Your task to perform on an android device: open chrome privacy settings Image 0: 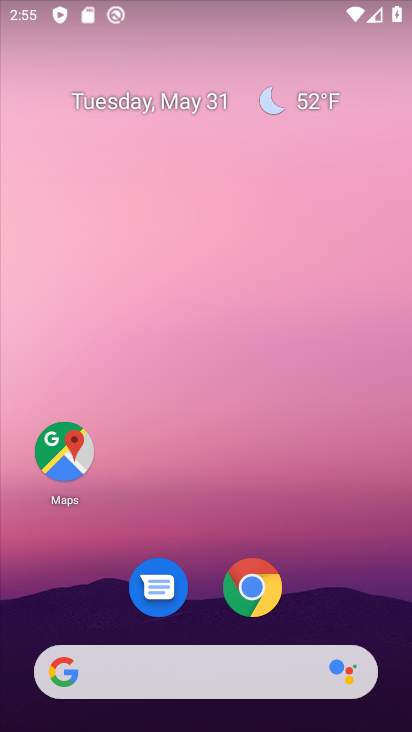
Step 0: drag from (369, 609) to (260, 181)
Your task to perform on an android device: open chrome privacy settings Image 1: 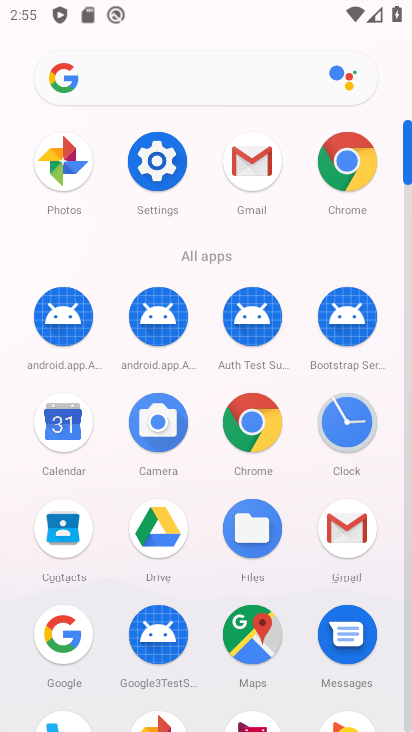
Step 1: click (340, 182)
Your task to perform on an android device: open chrome privacy settings Image 2: 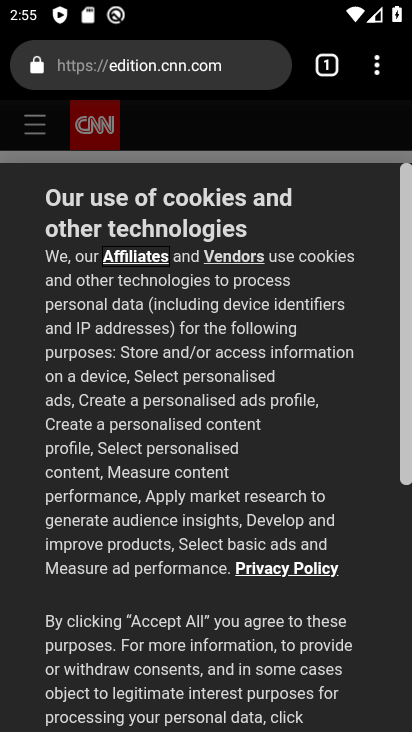
Step 2: click (380, 65)
Your task to perform on an android device: open chrome privacy settings Image 3: 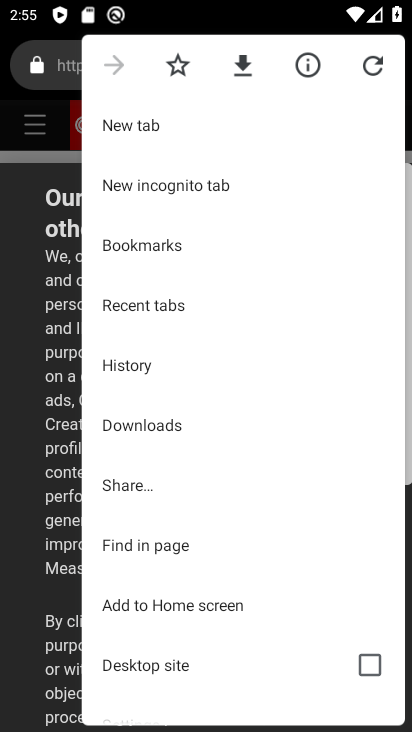
Step 3: drag from (200, 627) to (171, 162)
Your task to perform on an android device: open chrome privacy settings Image 4: 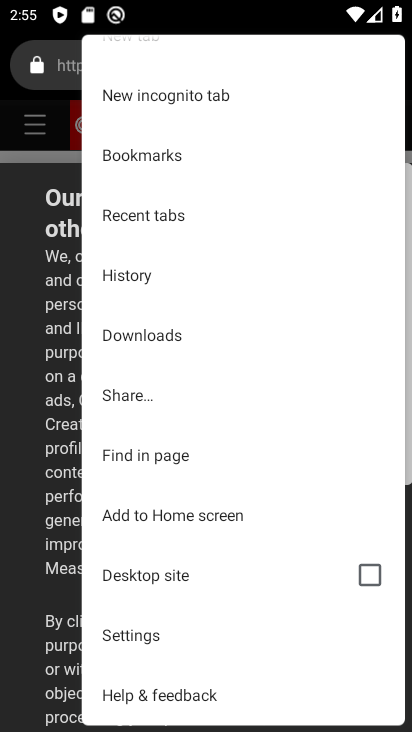
Step 4: click (160, 645)
Your task to perform on an android device: open chrome privacy settings Image 5: 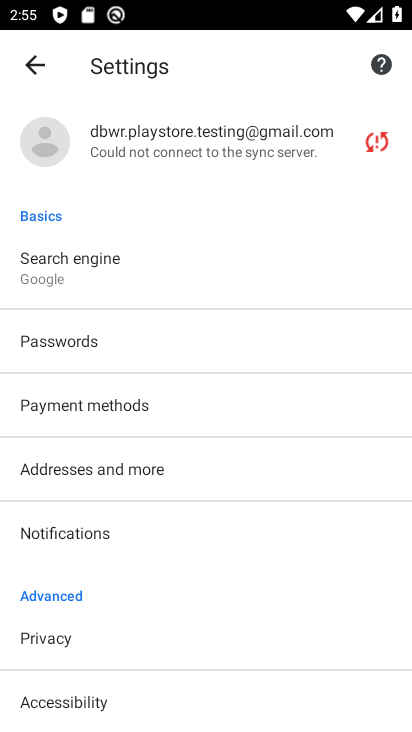
Step 5: click (160, 645)
Your task to perform on an android device: open chrome privacy settings Image 6: 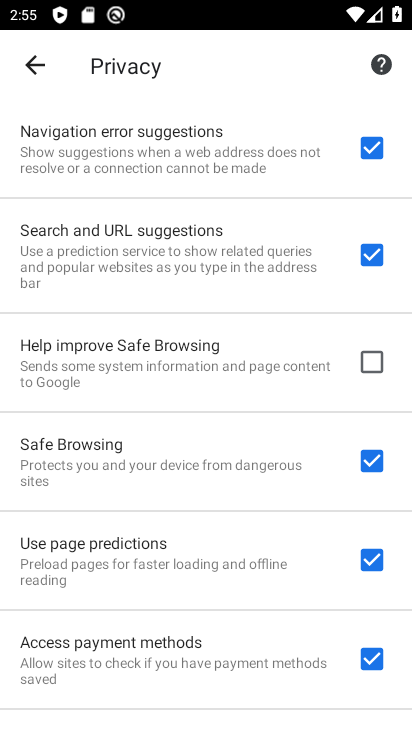
Step 6: task complete